Your task to perform on an android device: What is the news today? Image 0: 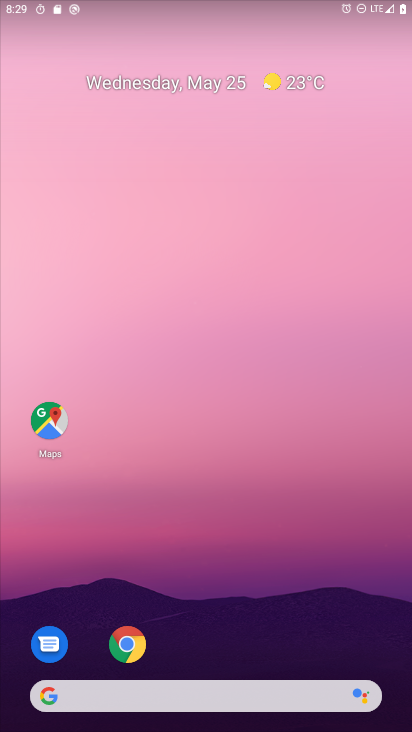
Step 0: drag from (318, 638) to (334, 13)
Your task to perform on an android device: What is the news today? Image 1: 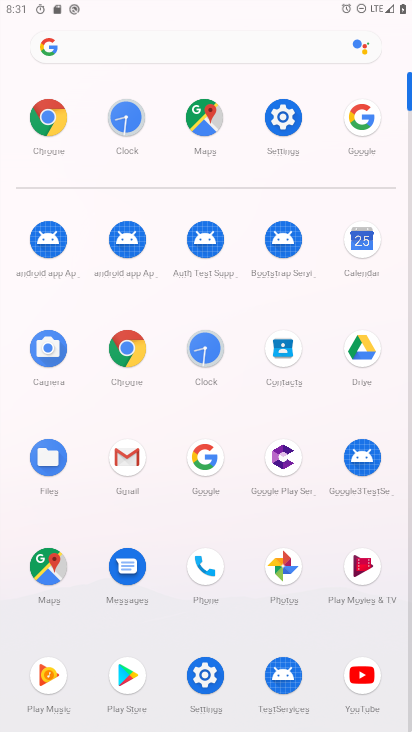
Step 1: click (224, 447)
Your task to perform on an android device: What is the news today? Image 2: 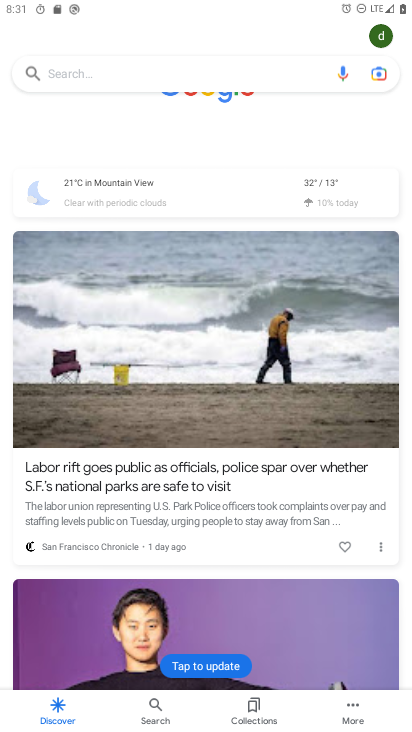
Step 2: click (56, 69)
Your task to perform on an android device: What is the news today? Image 3: 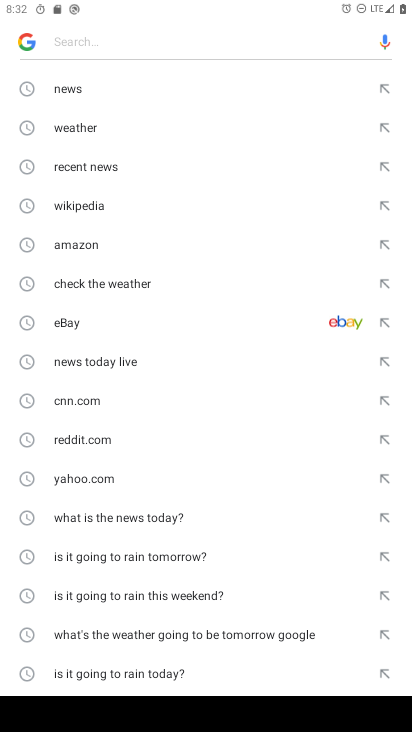
Step 3: click (149, 514)
Your task to perform on an android device: What is the news today? Image 4: 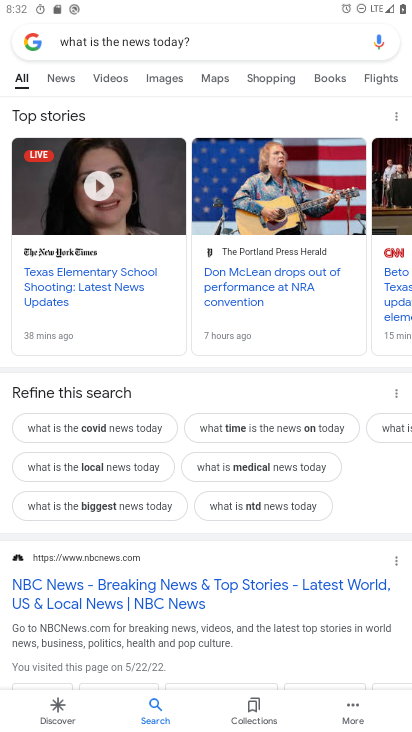
Step 4: task complete